Your task to perform on an android device: open app "Mercado Libre" Image 0: 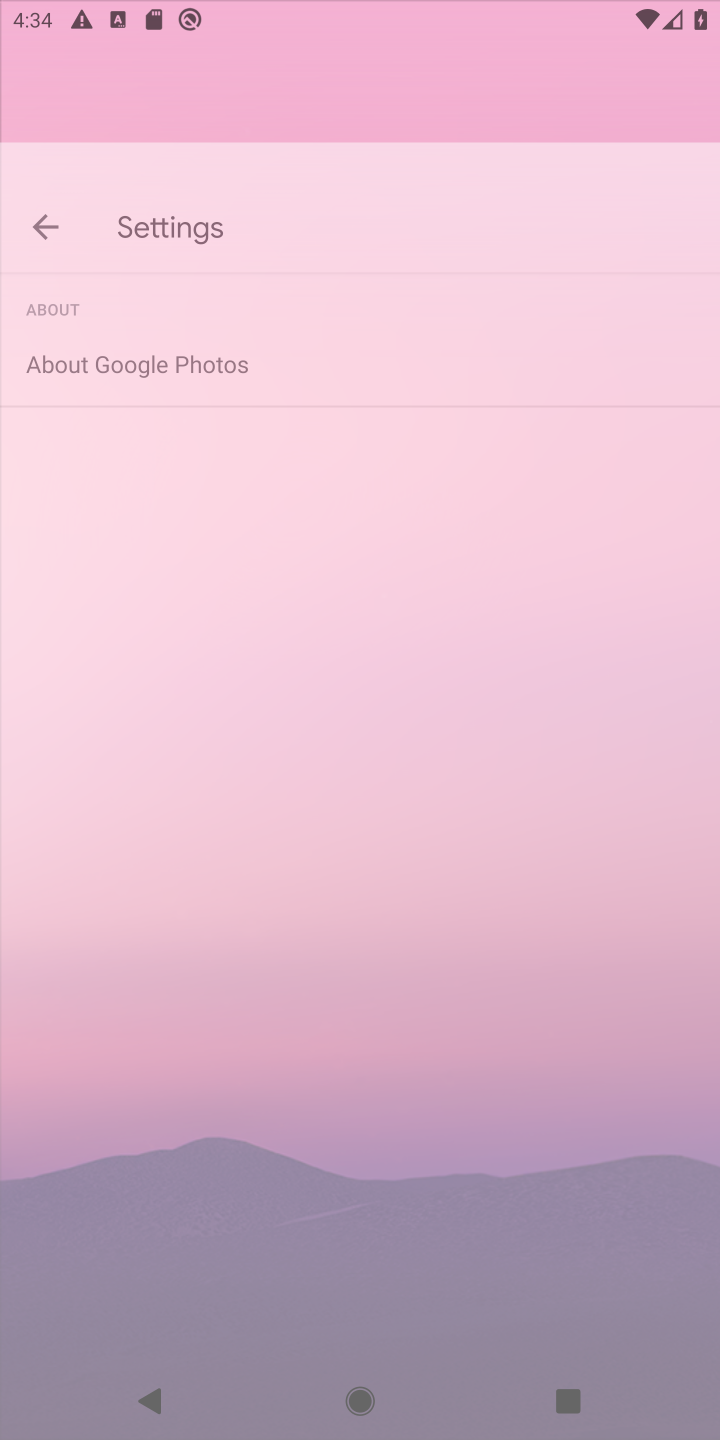
Step 0: press home button
Your task to perform on an android device: open app "Mercado Libre" Image 1: 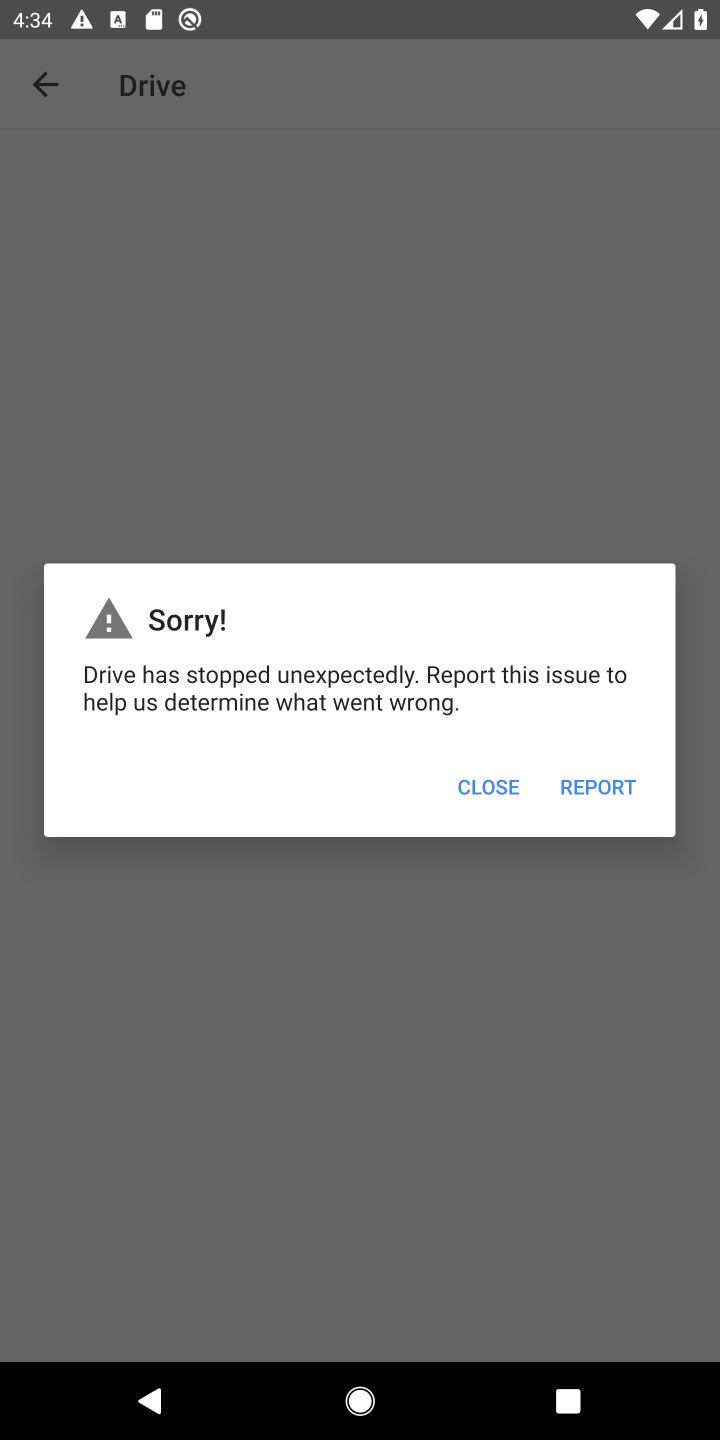
Step 1: press home button
Your task to perform on an android device: open app "Mercado Libre" Image 2: 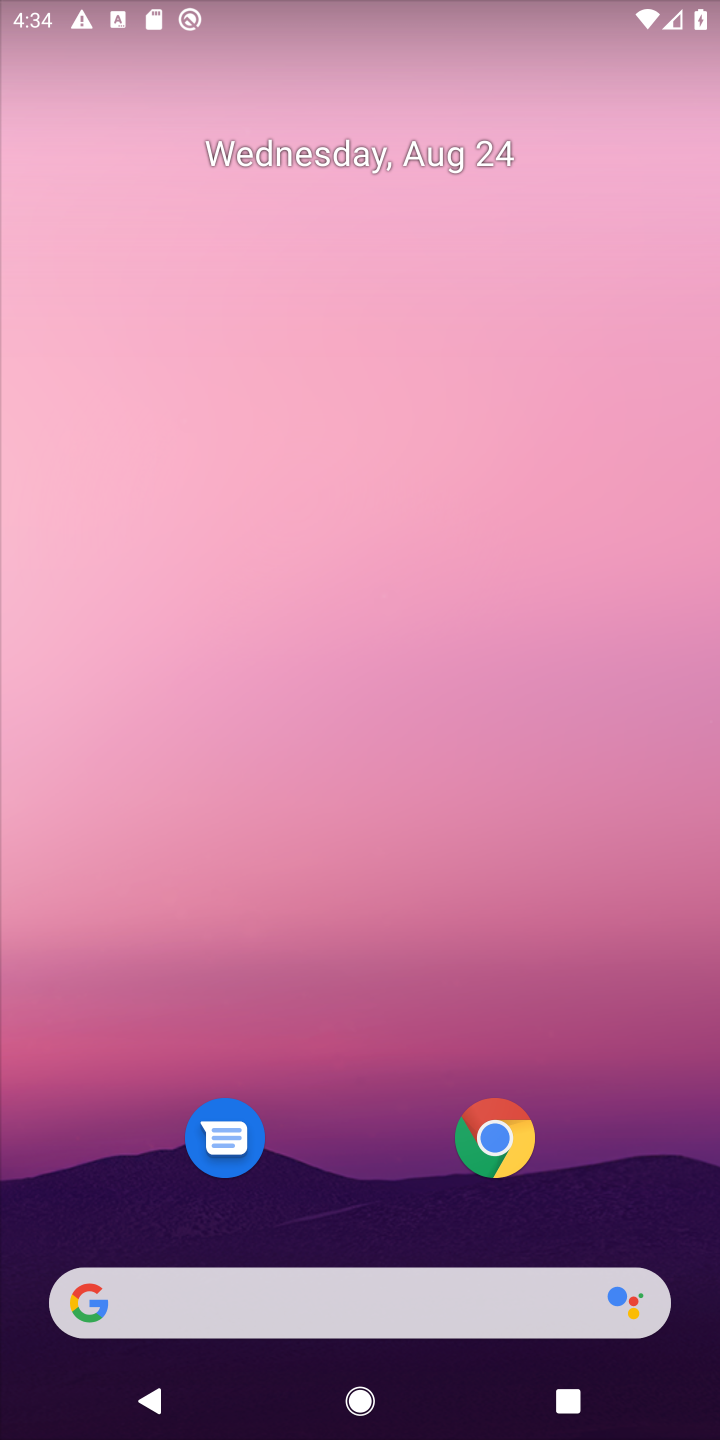
Step 2: press home button
Your task to perform on an android device: open app "Mercado Libre" Image 3: 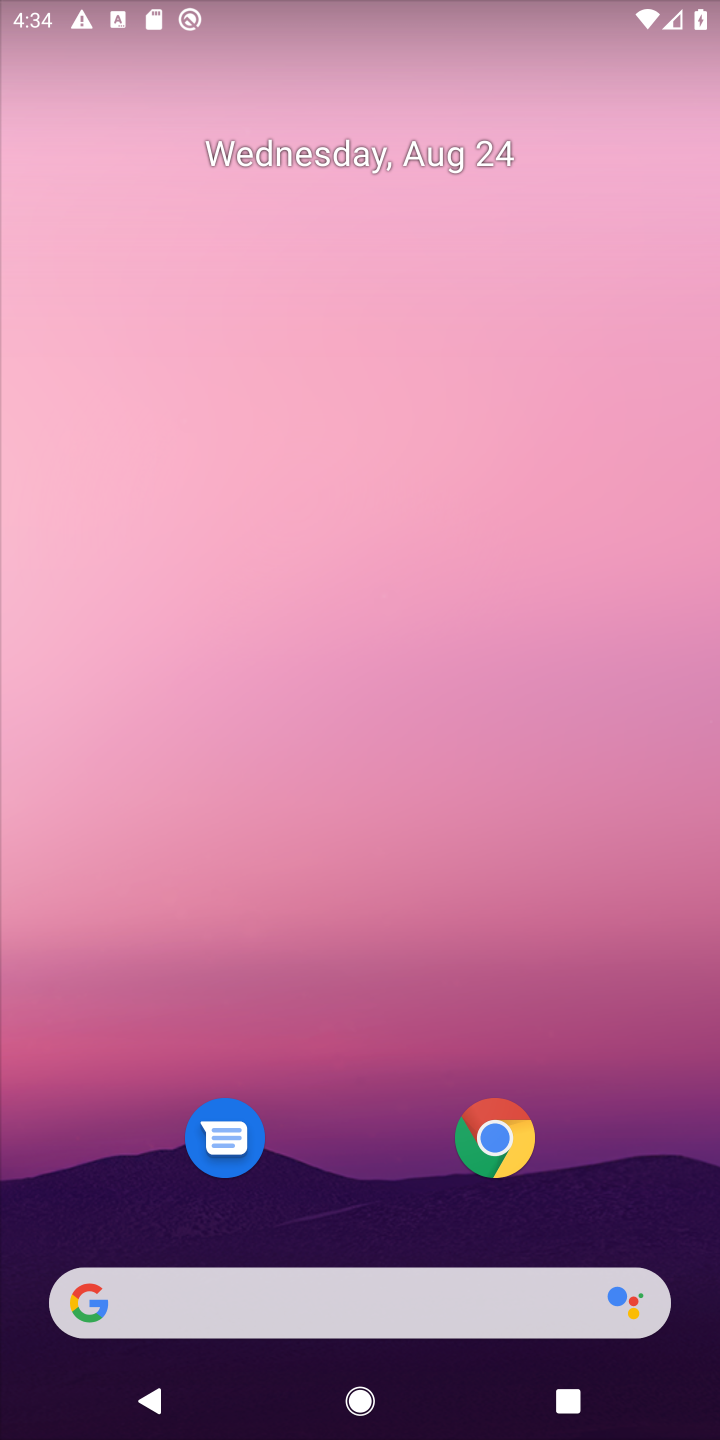
Step 3: drag from (382, 1252) to (371, 477)
Your task to perform on an android device: open app "Mercado Libre" Image 4: 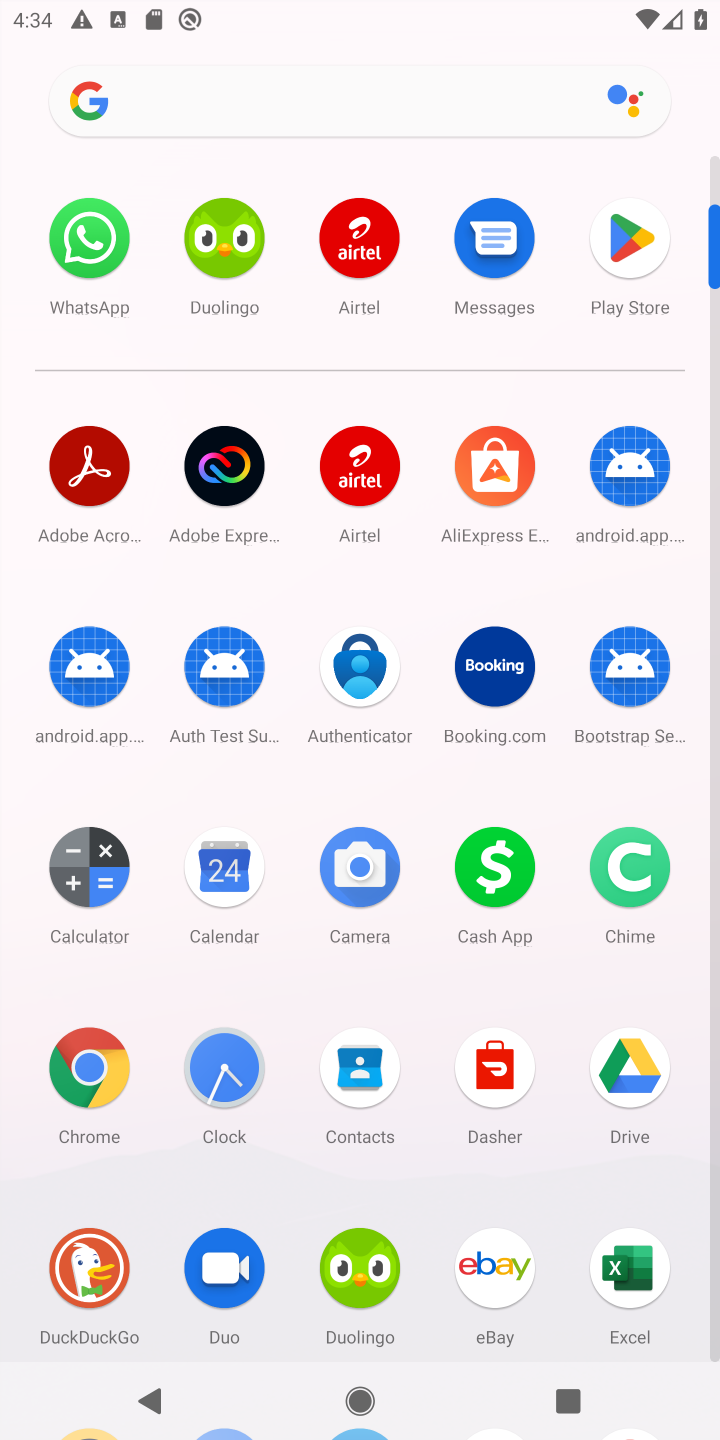
Step 4: click (622, 234)
Your task to perform on an android device: open app "Mercado Libre" Image 5: 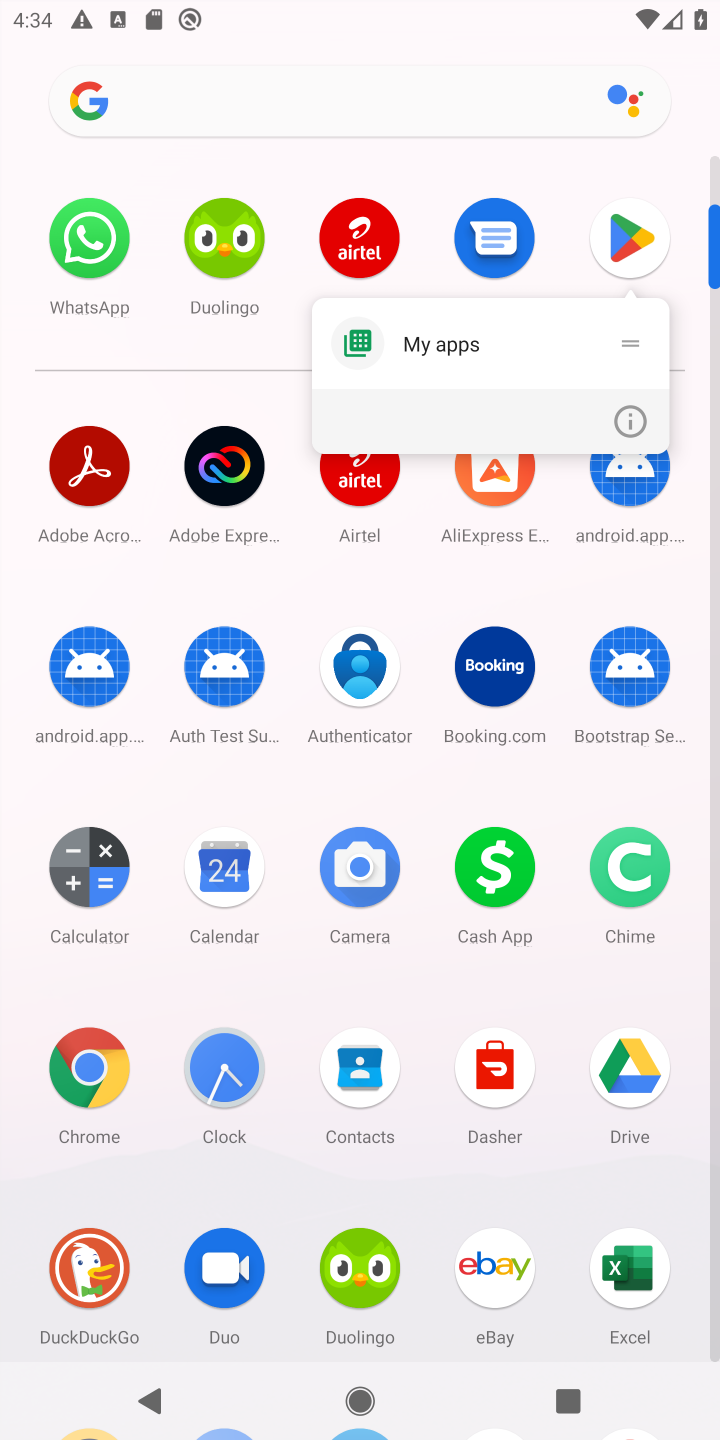
Step 5: click (620, 235)
Your task to perform on an android device: open app "Mercado Libre" Image 6: 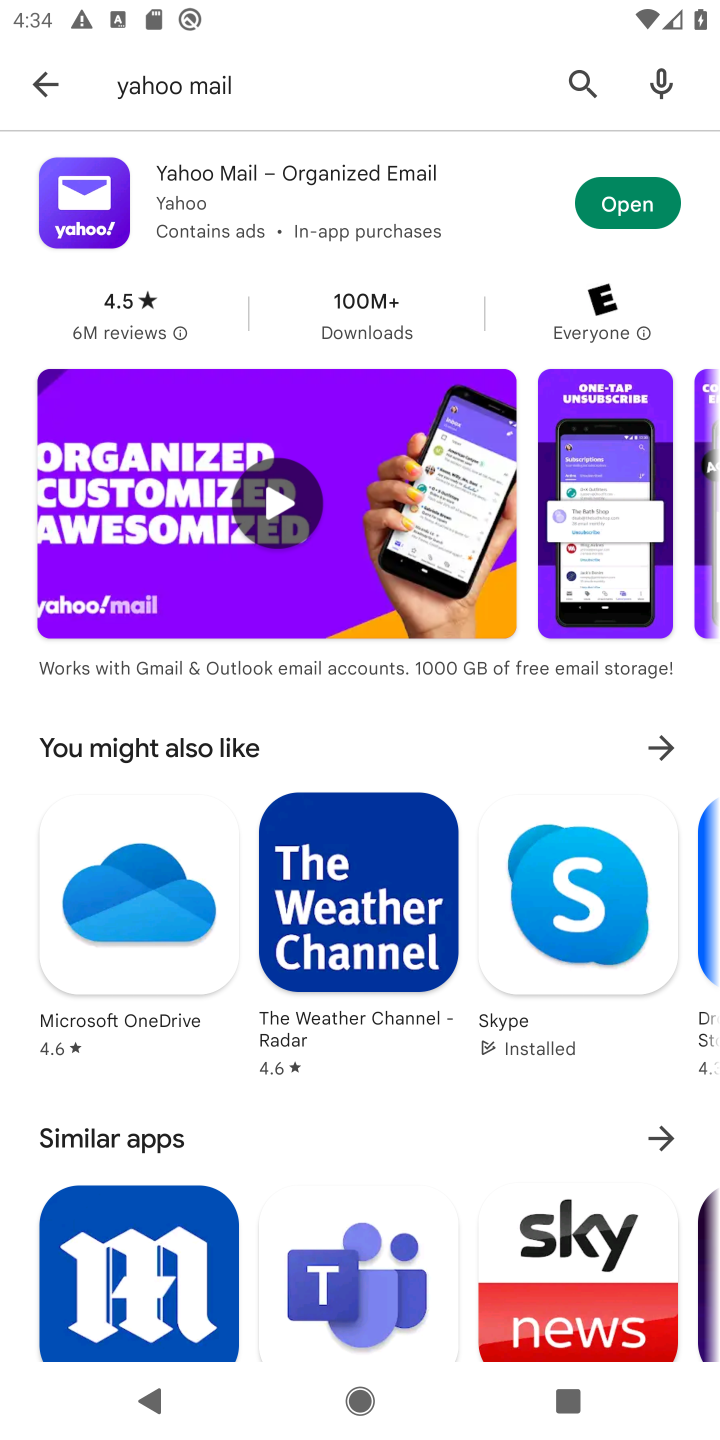
Step 6: click (584, 84)
Your task to perform on an android device: open app "Mercado Libre" Image 7: 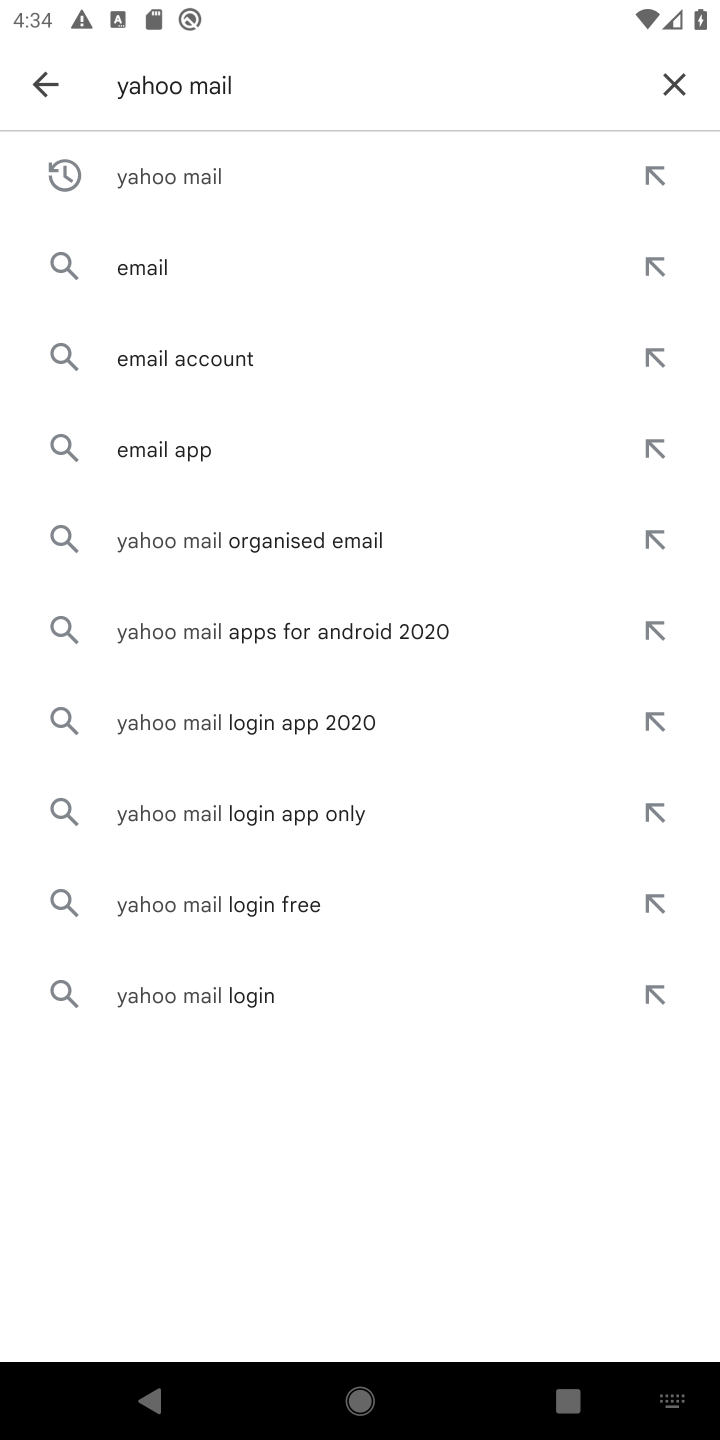
Step 7: click (666, 76)
Your task to perform on an android device: open app "Mercado Libre" Image 8: 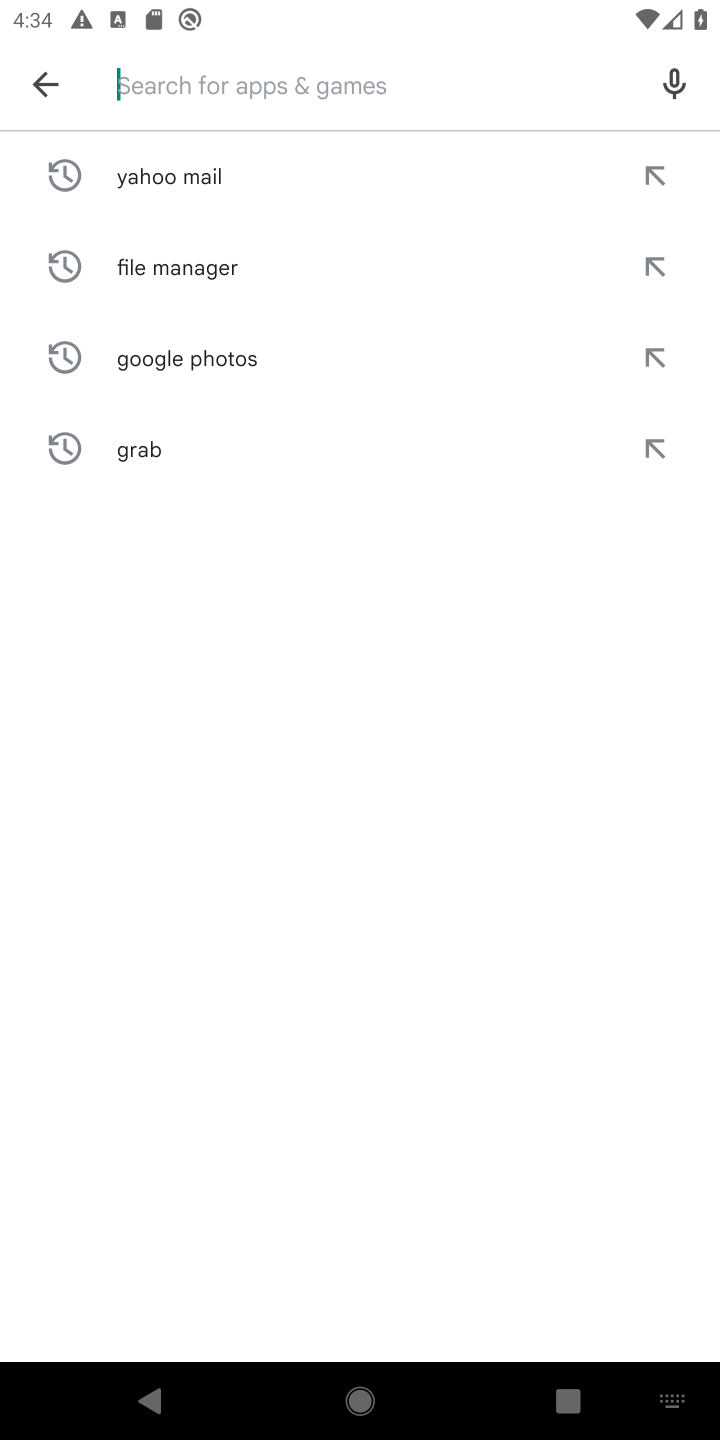
Step 8: type "Mercado Libre"
Your task to perform on an android device: open app "Mercado Libre" Image 9: 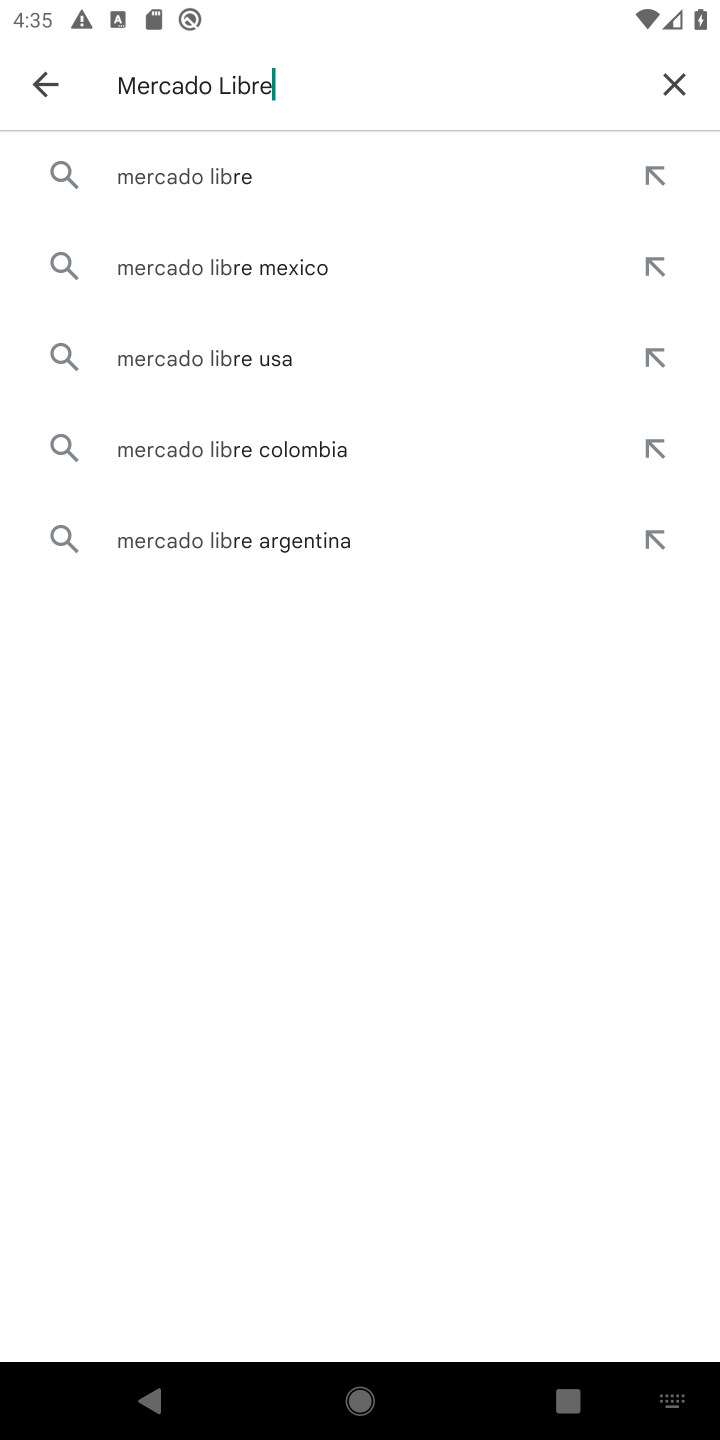
Step 9: type ""
Your task to perform on an android device: open app "Mercado Libre" Image 10: 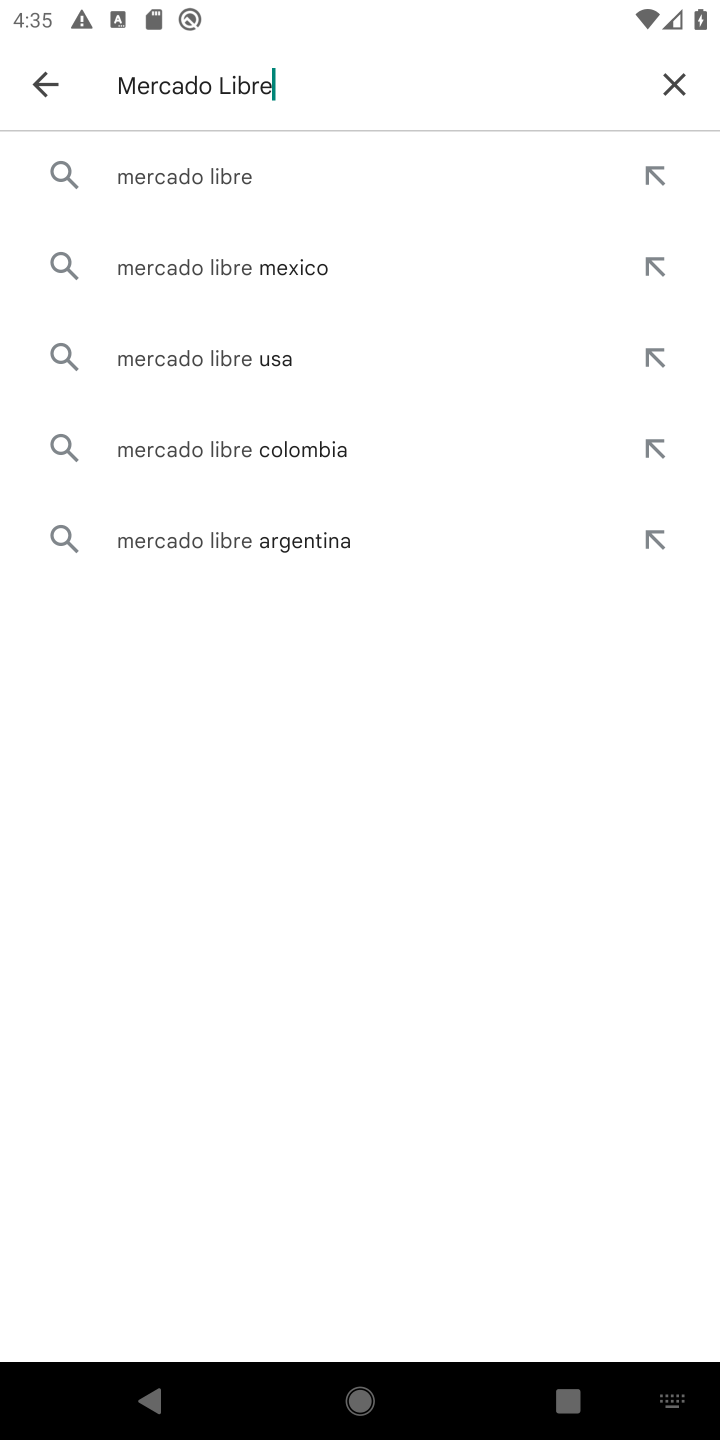
Step 10: click (198, 182)
Your task to perform on an android device: open app "Mercado Libre" Image 11: 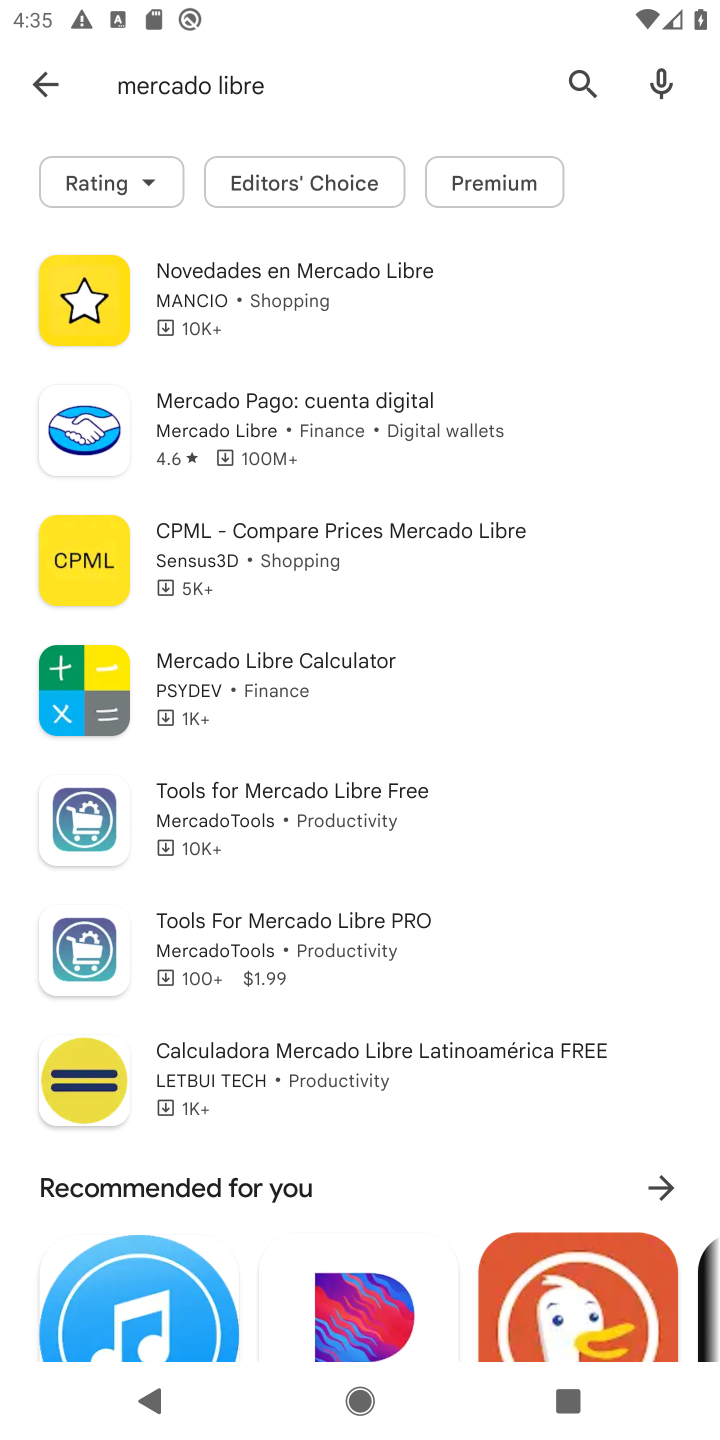
Step 11: task complete